Your task to perform on an android device: uninstall "LinkedIn" Image 0: 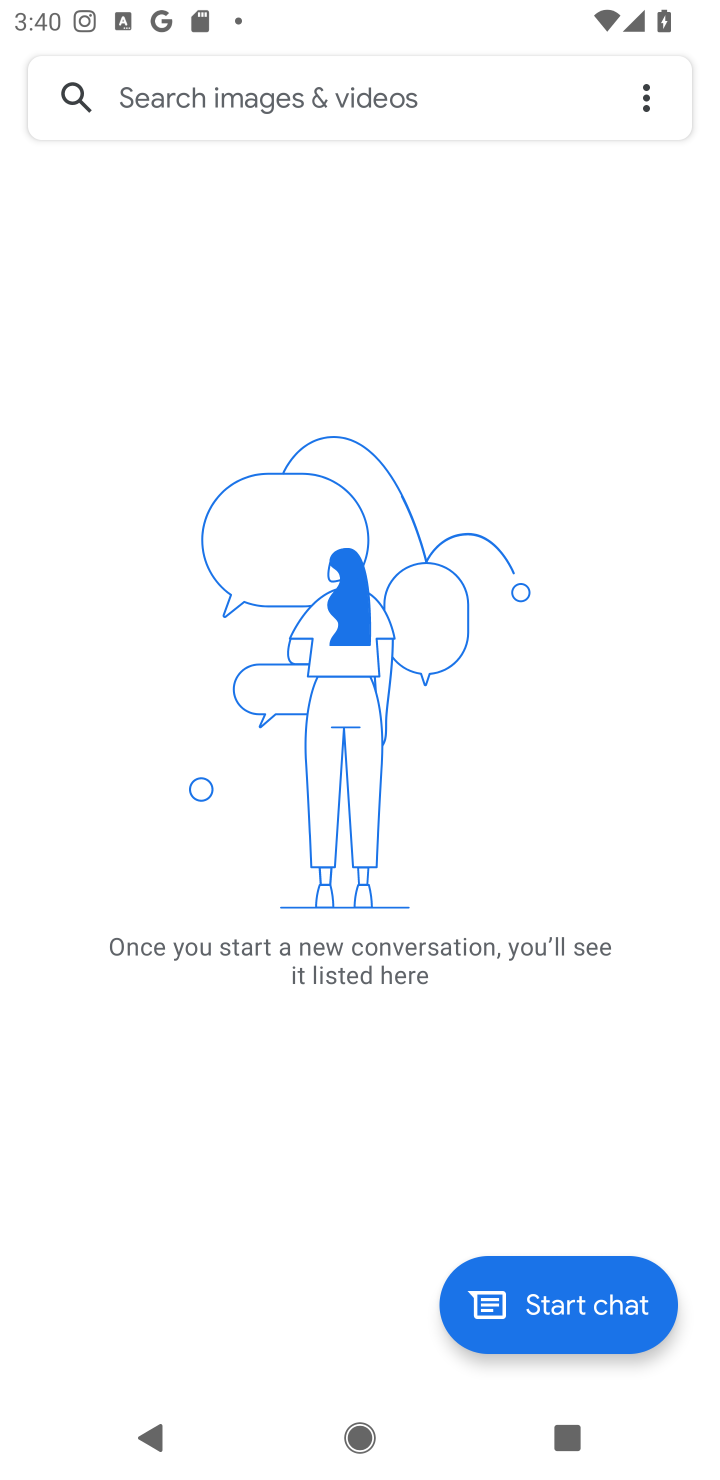
Step 0: press home button
Your task to perform on an android device: uninstall "LinkedIn" Image 1: 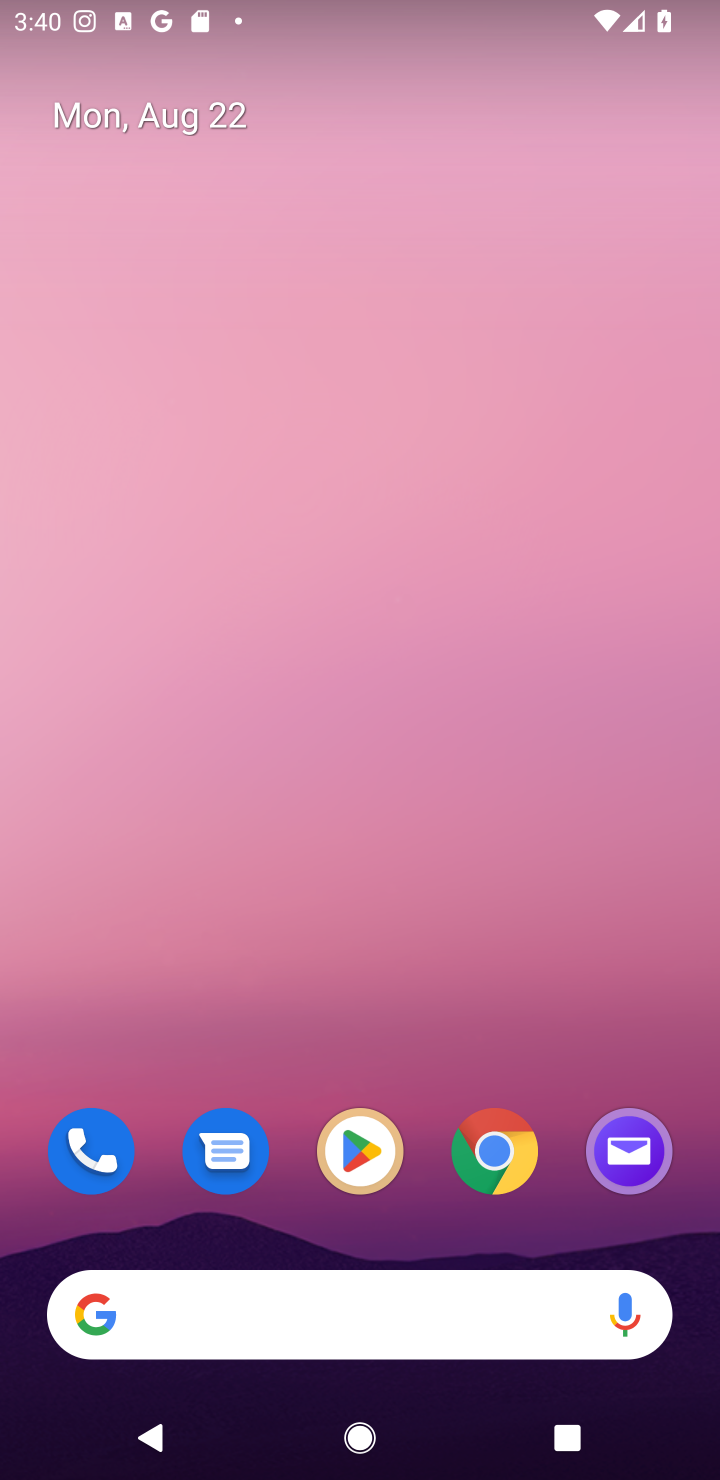
Step 1: click (342, 1146)
Your task to perform on an android device: uninstall "LinkedIn" Image 2: 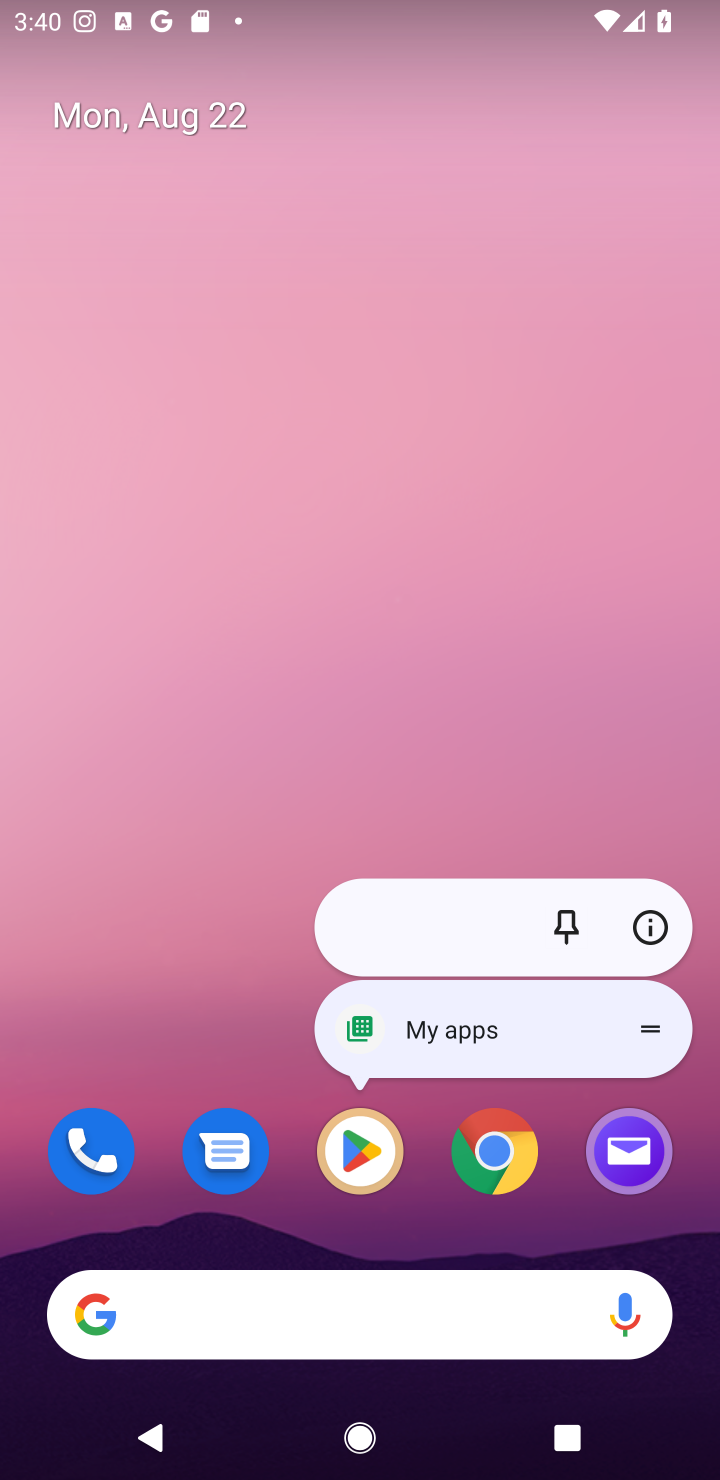
Step 2: click (367, 1139)
Your task to perform on an android device: uninstall "LinkedIn" Image 3: 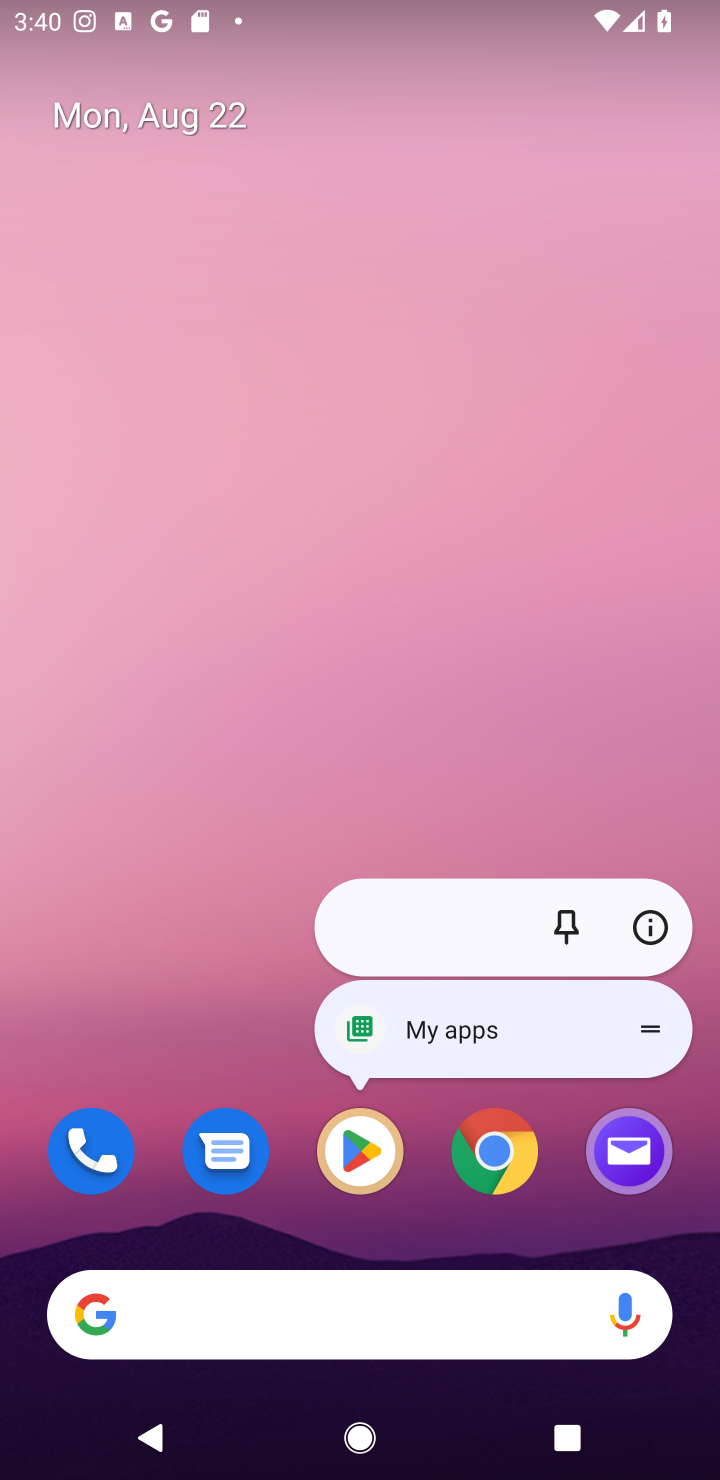
Step 3: click (356, 1155)
Your task to perform on an android device: uninstall "LinkedIn" Image 4: 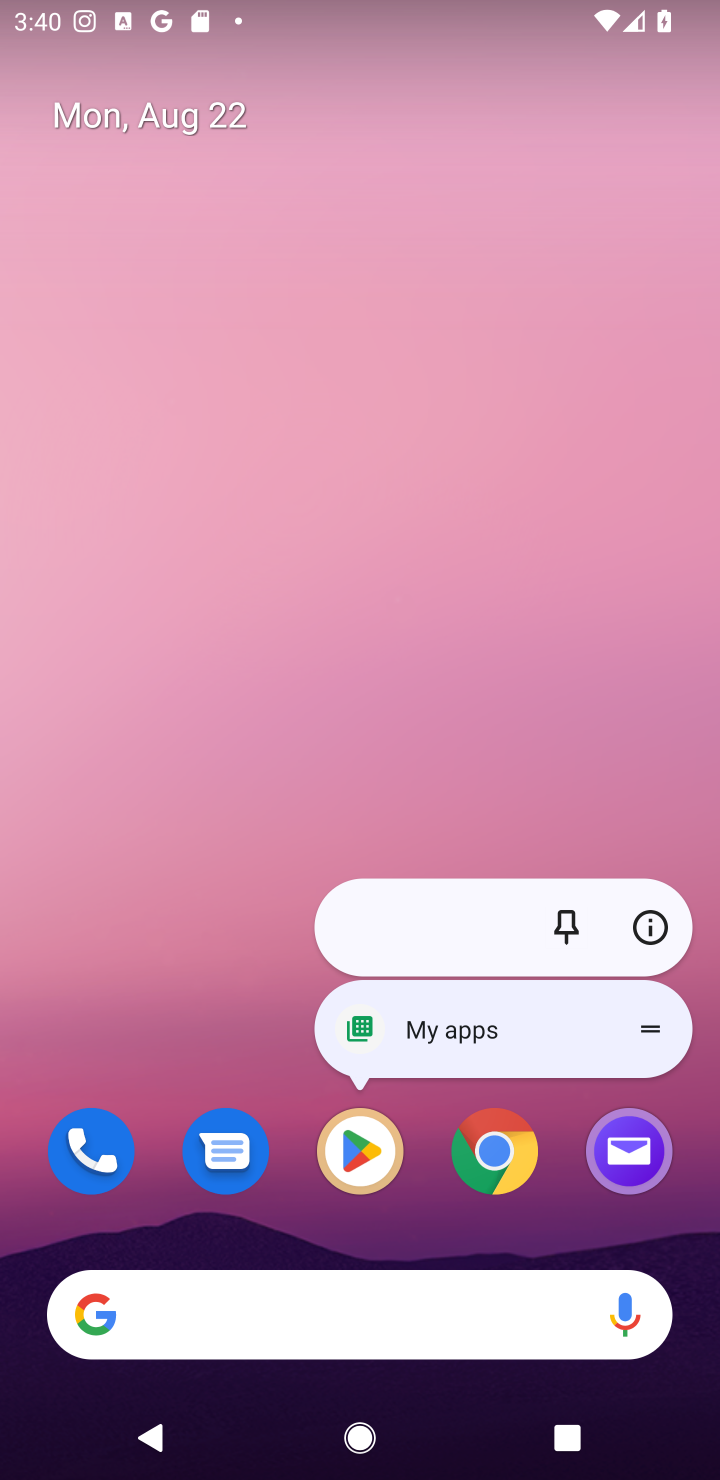
Step 4: click (360, 1146)
Your task to perform on an android device: uninstall "LinkedIn" Image 5: 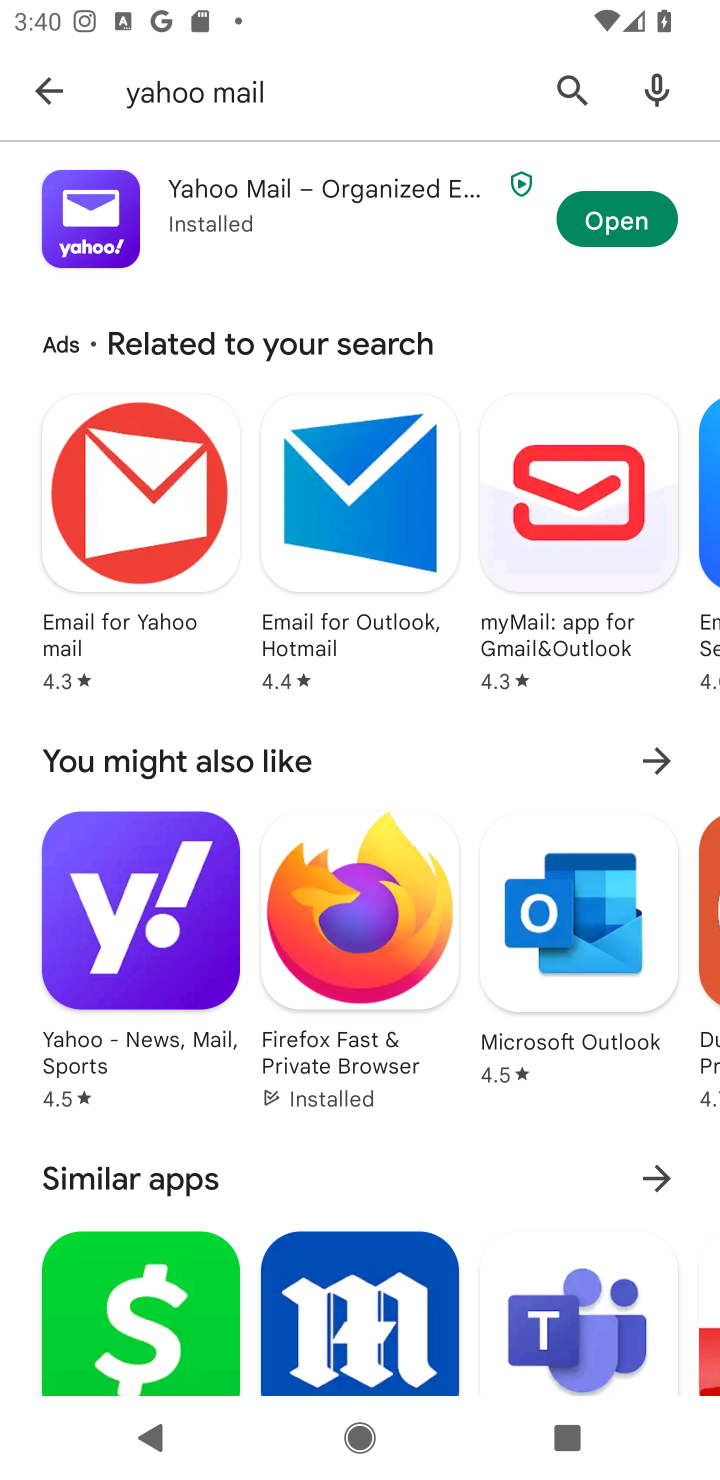
Step 5: click (567, 82)
Your task to perform on an android device: uninstall "LinkedIn" Image 6: 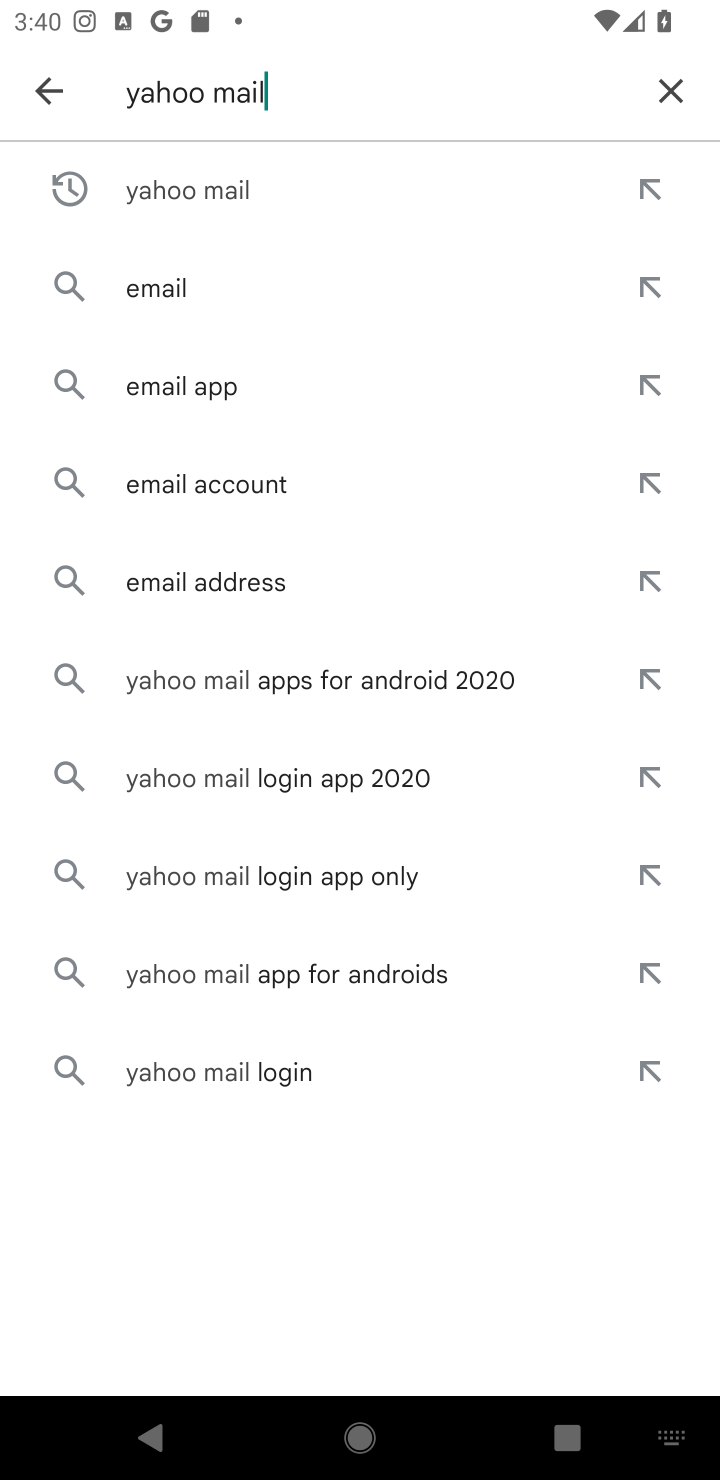
Step 6: click (661, 93)
Your task to perform on an android device: uninstall "LinkedIn" Image 7: 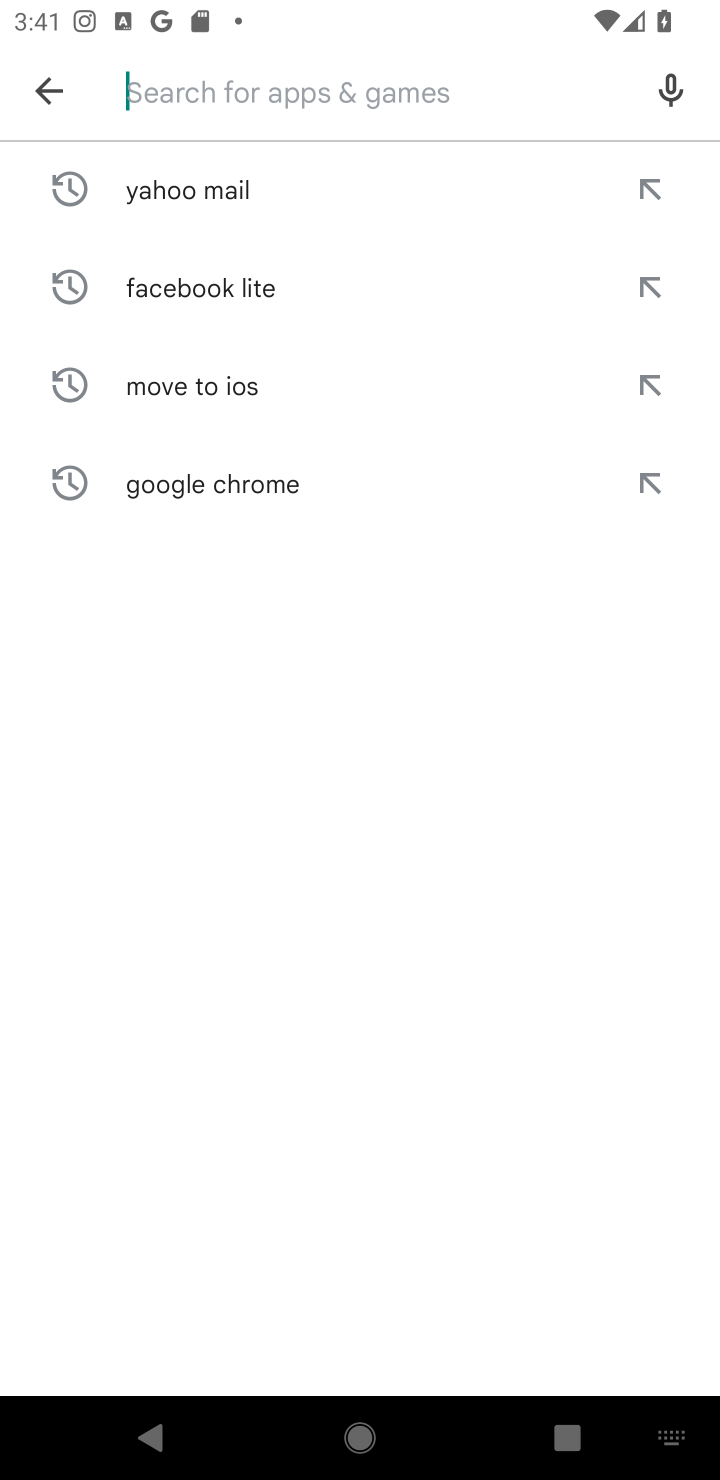
Step 7: type "LinkedIn"
Your task to perform on an android device: uninstall "LinkedIn" Image 8: 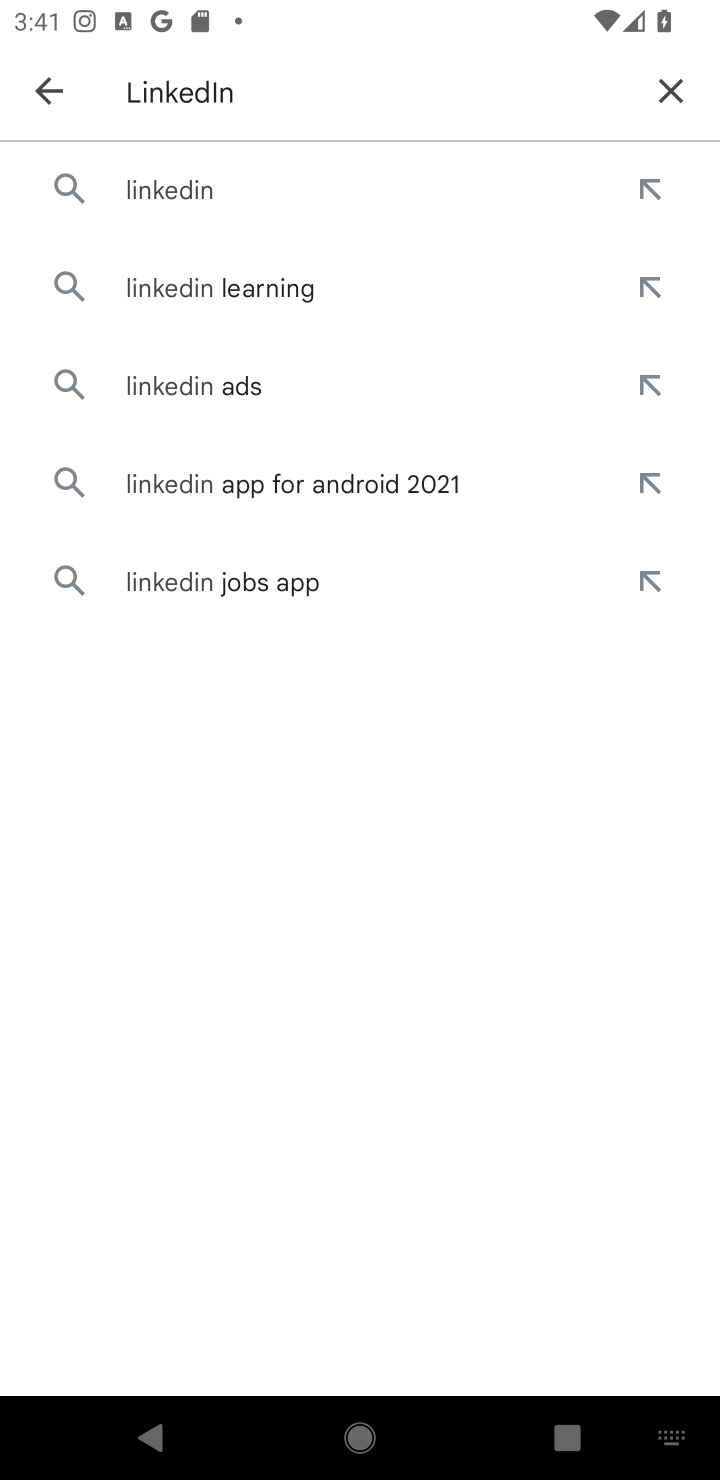
Step 8: click (193, 186)
Your task to perform on an android device: uninstall "LinkedIn" Image 9: 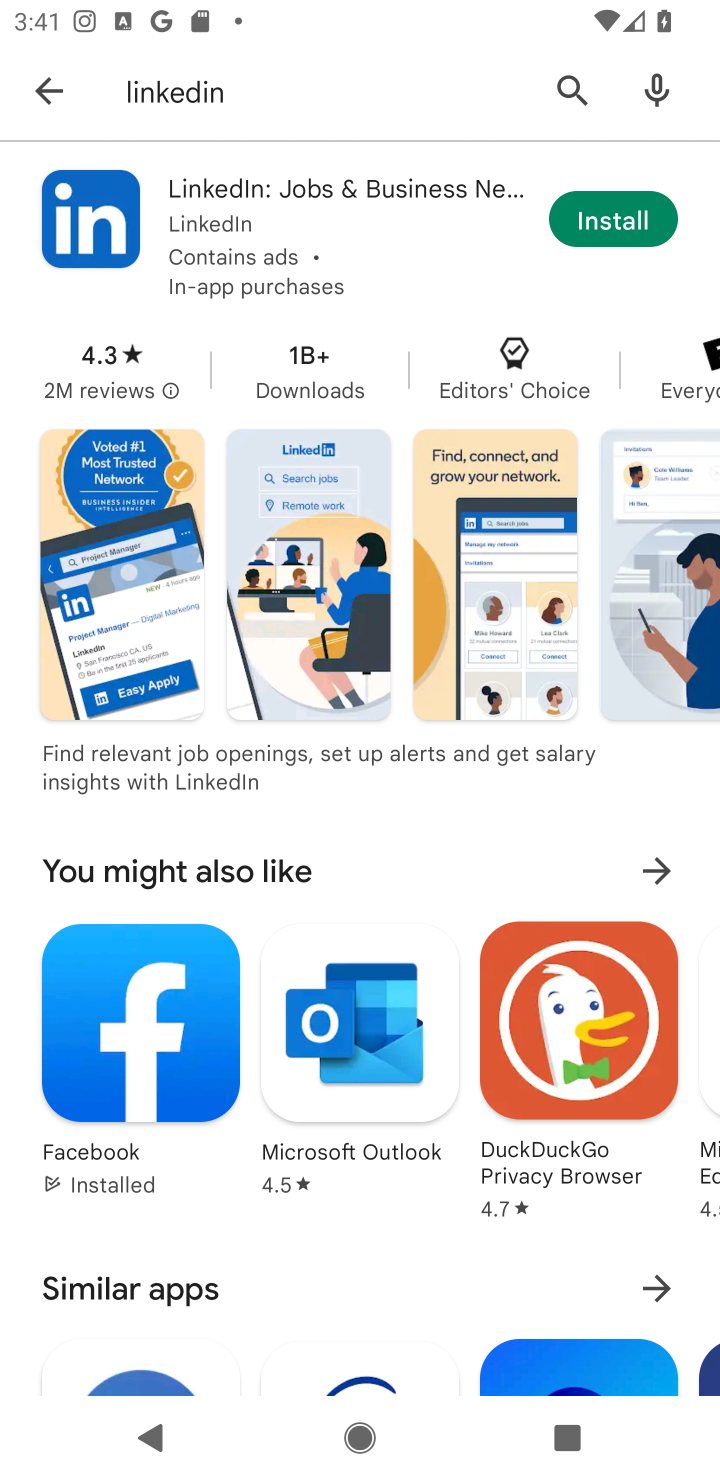
Step 9: task complete